Your task to perform on an android device: turn off smart reply in the gmail app Image 0: 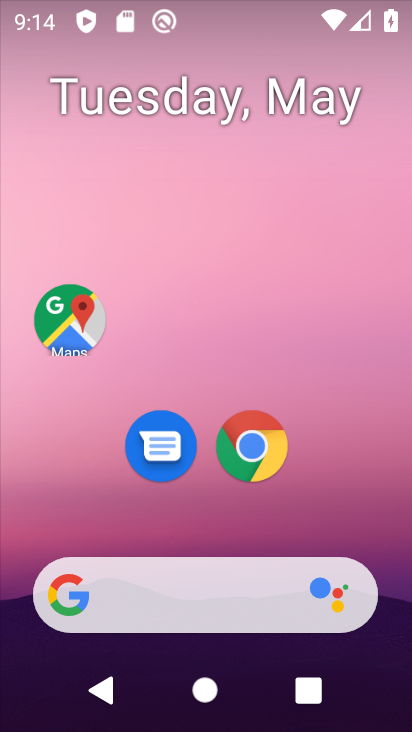
Step 0: drag from (212, 599) to (196, 112)
Your task to perform on an android device: turn off smart reply in the gmail app Image 1: 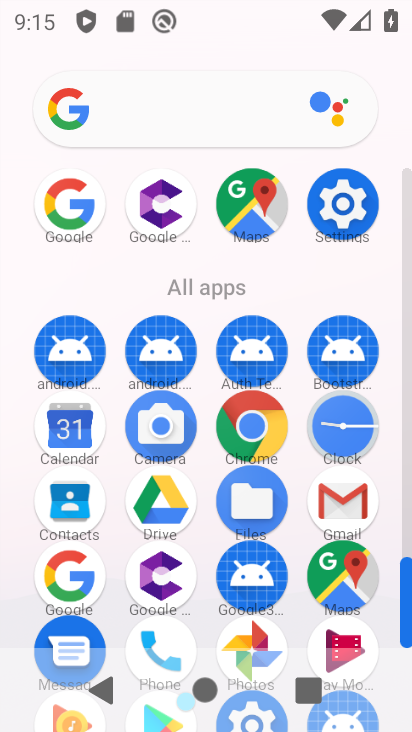
Step 1: click (352, 492)
Your task to perform on an android device: turn off smart reply in the gmail app Image 2: 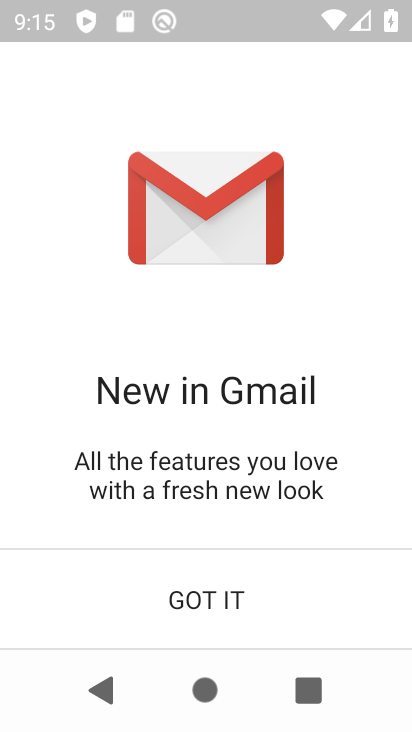
Step 2: click (260, 587)
Your task to perform on an android device: turn off smart reply in the gmail app Image 3: 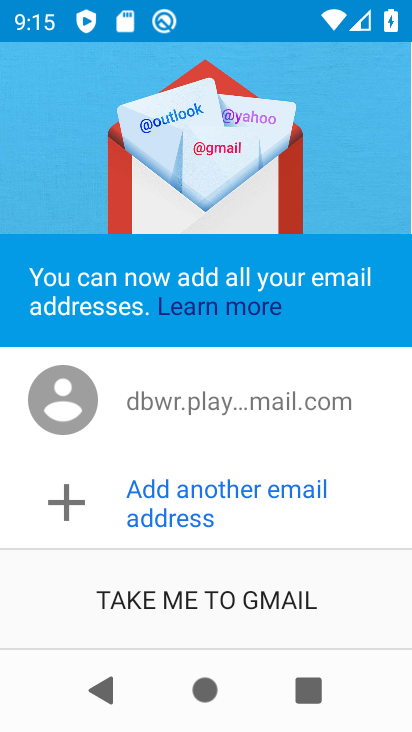
Step 3: click (193, 589)
Your task to perform on an android device: turn off smart reply in the gmail app Image 4: 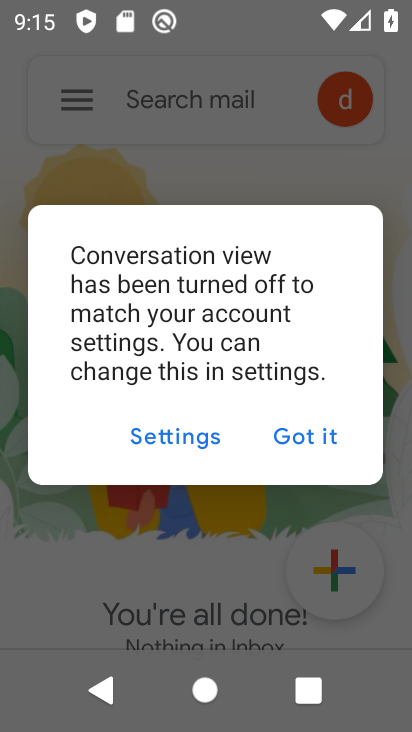
Step 4: click (304, 433)
Your task to perform on an android device: turn off smart reply in the gmail app Image 5: 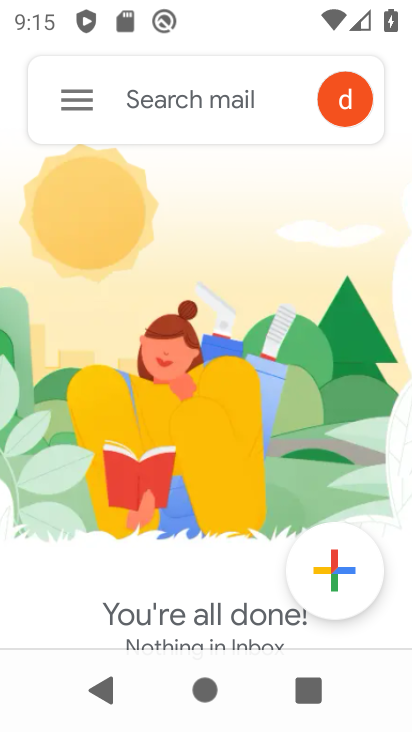
Step 5: click (89, 102)
Your task to perform on an android device: turn off smart reply in the gmail app Image 6: 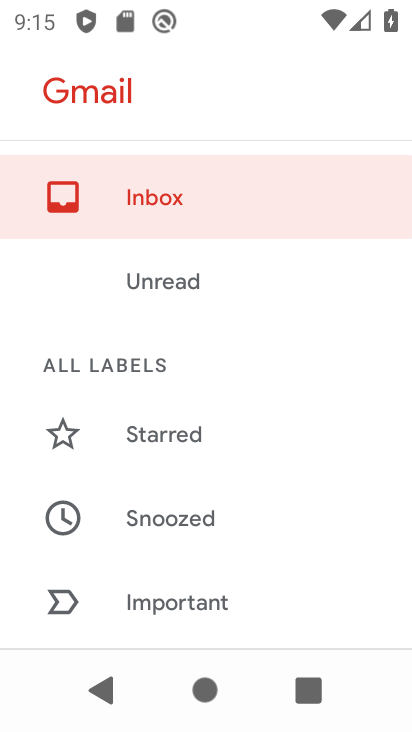
Step 6: drag from (179, 576) to (158, 114)
Your task to perform on an android device: turn off smart reply in the gmail app Image 7: 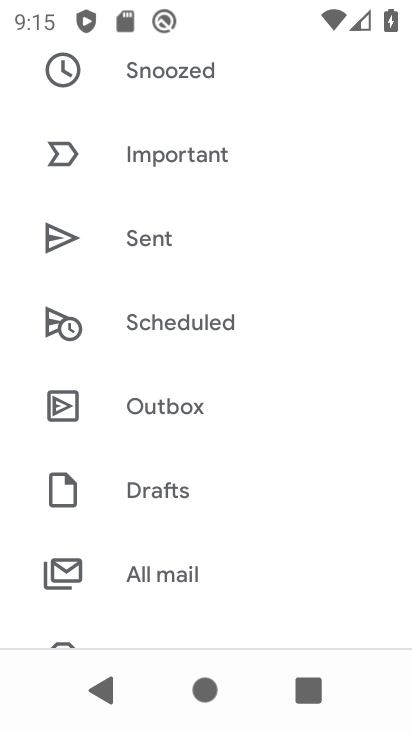
Step 7: drag from (169, 600) to (133, 163)
Your task to perform on an android device: turn off smart reply in the gmail app Image 8: 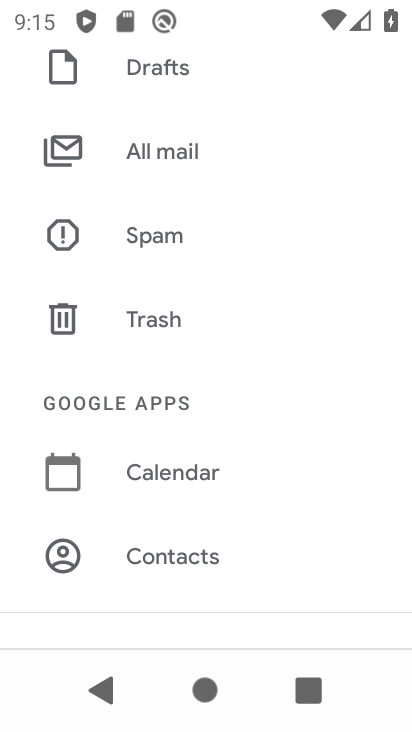
Step 8: drag from (133, 551) to (100, 158)
Your task to perform on an android device: turn off smart reply in the gmail app Image 9: 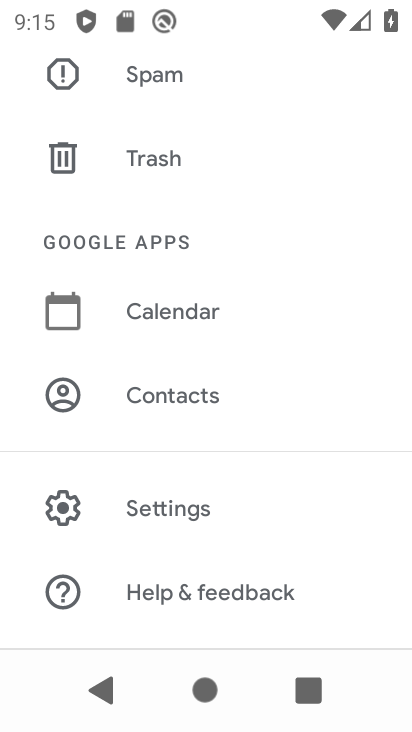
Step 9: click (167, 514)
Your task to perform on an android device: turn off smart reply in the gmail app Image 10: 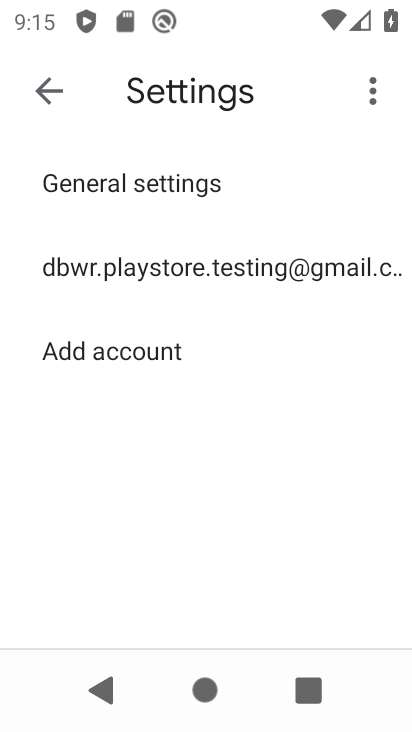
Step 10: click (160, 266)
Your task to perform on an android device: turn off smart reply in the gmail app Image 11: 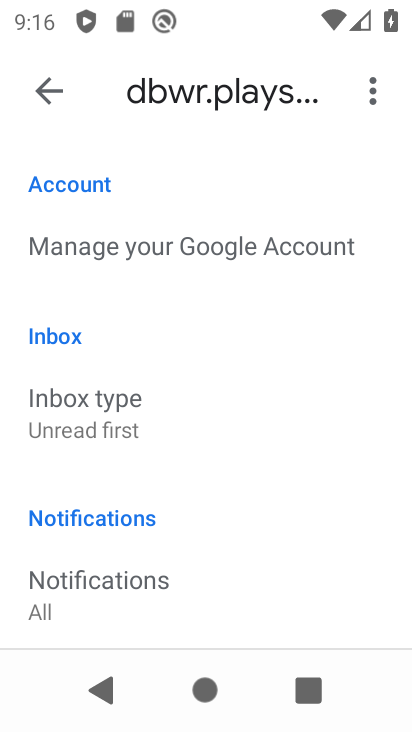
Step 11: drag from (169, 496) to (124, 80)
Your task to perform on an android device: turn off smart reply in the gmail app Image 12: 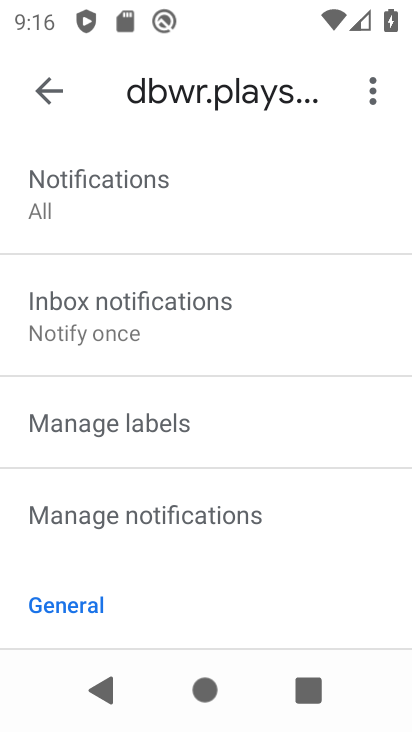
Step 12: drag from (175, 546) to (145, 90)
Your task to perform on an android device: turn off smart reply in the gmail app Image 13: 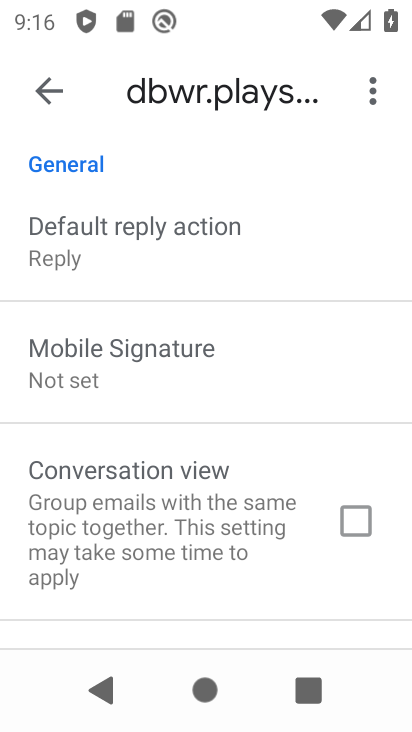
Step 13: drag from (172, 506) to (155, 72)
Your task to perform on an android device: turn off smart reply in the gmail app Image 14: 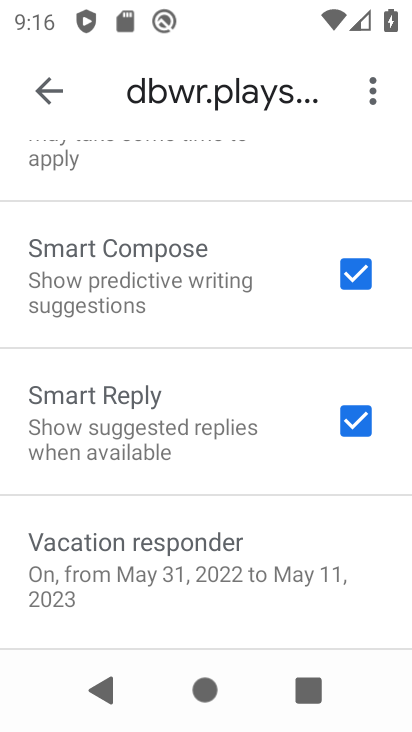
Step 14: click (360, 419)
Your task to perform on an android device: turn off smart reply in the gmail app Image 15: 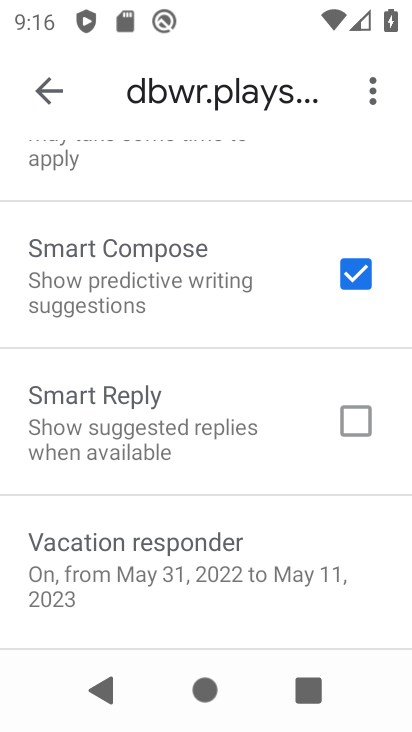
Step 15: task complete